Your task to perform on an android device: Show the shopping cart on target.com. Add "lenovo thinkpad" to the cart on target.com Image 0: 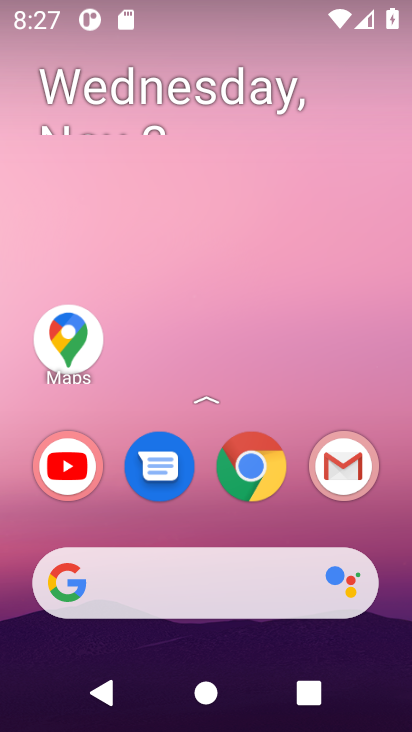
Step 0: click (220, 598)
Your task to perform on an android device: Show the shopping cart on target.com. Add "lenovo thinkpad" to the cart on target.com Image 1: 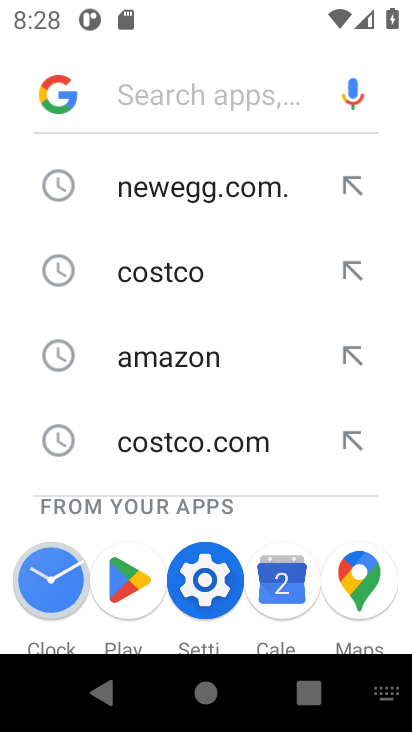
Step 1: type "target.com"
Your task to perform on an android device: Show the shopping cart on target.com. Add "lenovo thinkpad" to the cart on target.com Image 2: 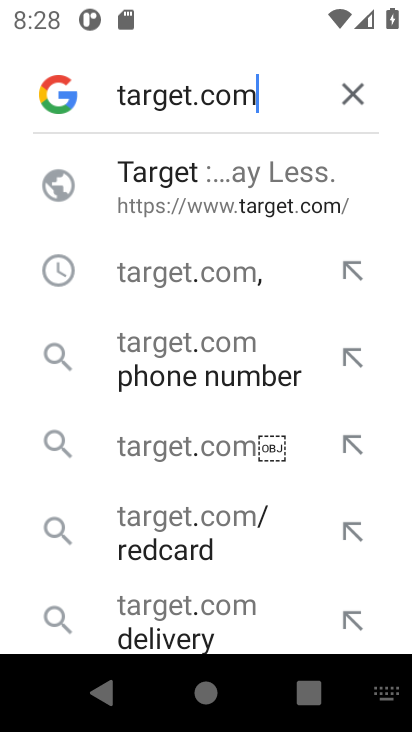
Step 2: type ""
Your task to perform on an android device: Show the shopping cart on target.com. Add "lenovo thinkpad" to the cart on target.com Image 3: 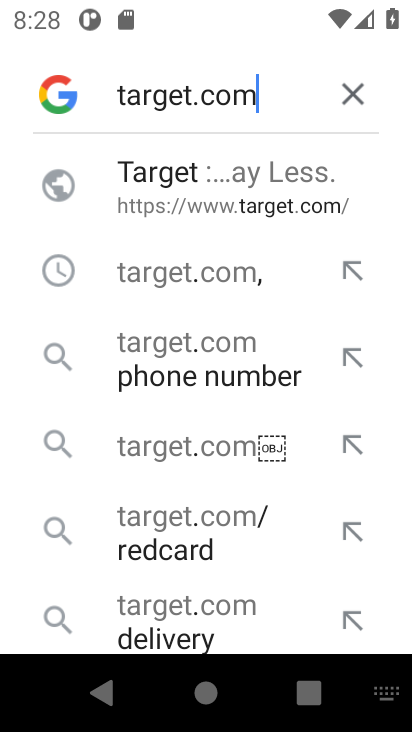
Step 3: click (206, 204)
Your task to perform on an android device: Show the shopping cart on target.com. Add "lenovo thinkpad" to the cart on target.com Image 4: 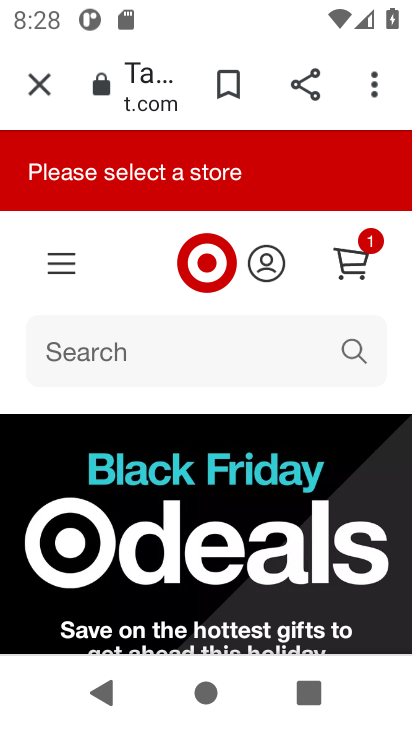
Step 4: click (345, 327)
Your task to perform on an android device: Show the shopping cart on target.com. Add "lenovo thinkpad" to the cart on target.com Image 5: 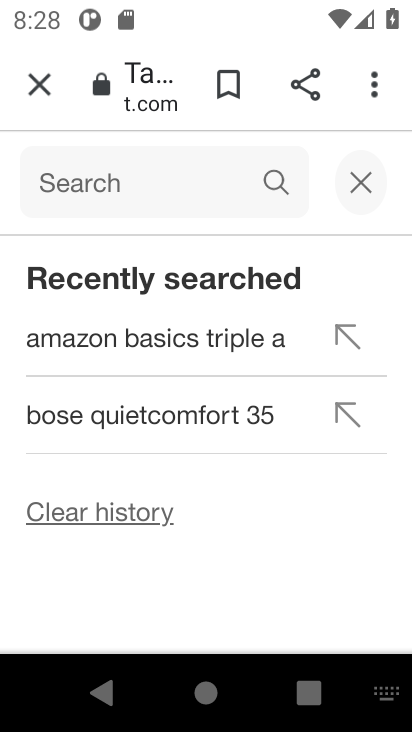
Step 5: type "lenovo thinkpad"
Your task to perform on an android device: Show the shopping cart on target.com. Add "lenovo thinkpad" to the cart on target.com Image 6: 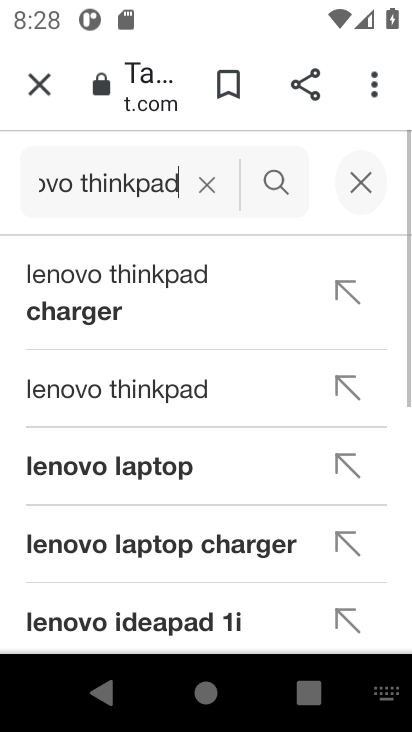
Step 6: type ""
Your task to perform on an android device: Show the shopping cart on target.com. Add "lenovo thinkpad" to the cart on target.com Image 7: 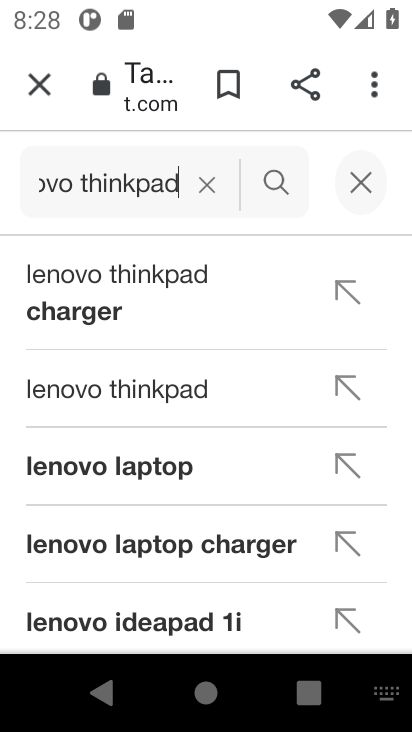
Step 7: click (181, 395)
Your task to perform on an android device: Show the shopping cart on target.com. Add "lenovo thinkpad" to the cart on target.com Image 8: 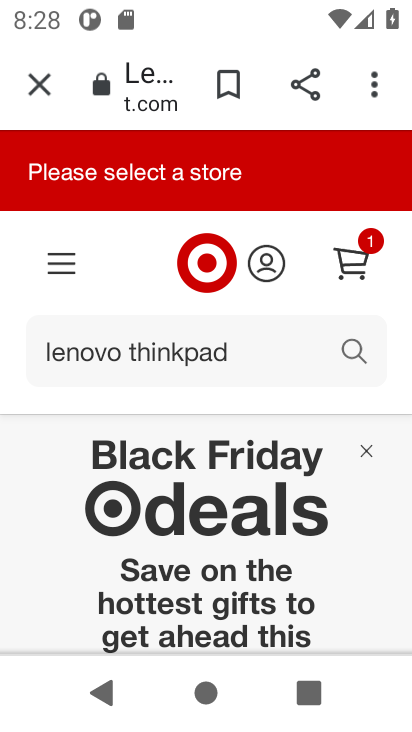
Step 8: drag from (220, 551) to (221, 180)
Your task to perform on an android device: Show the shopping cart on target.com. Add "lenovo thinkpad" to the cart on target.com Image 9: 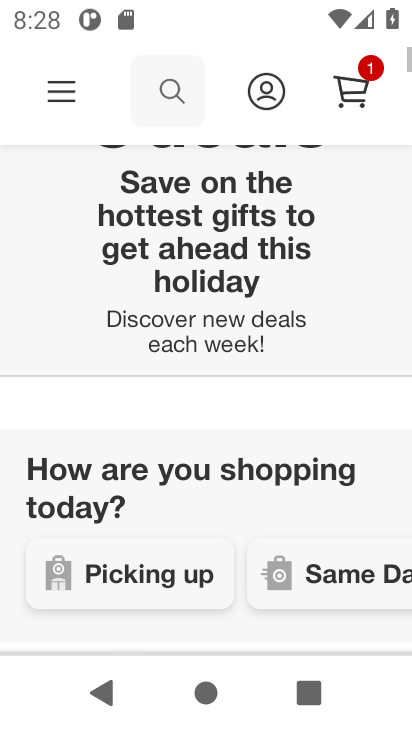
Step 9: drag from (168, 451) to (178, 246)
Your task to perform on an android device: Show the shopping cart on target.com. Add "lenovo thinkpad" to the cart on target.com Image 10: 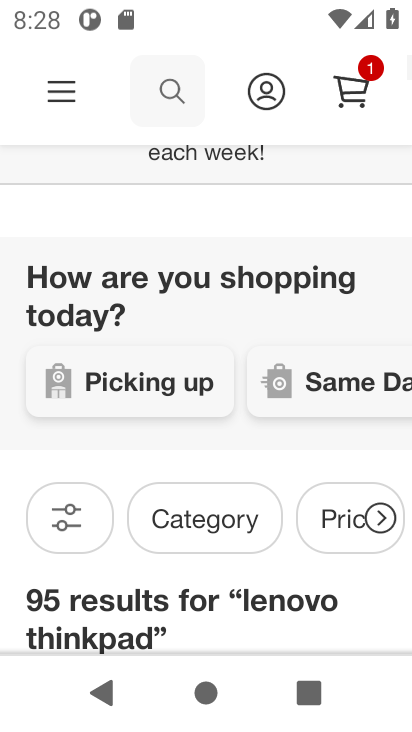
Step 10: drag from (217, 509) to (224, 190)
Your task to perform on an android device: Show the shopping cart on target.com. Add "lenovo thinkpad" to the cart on target.com Image 11: 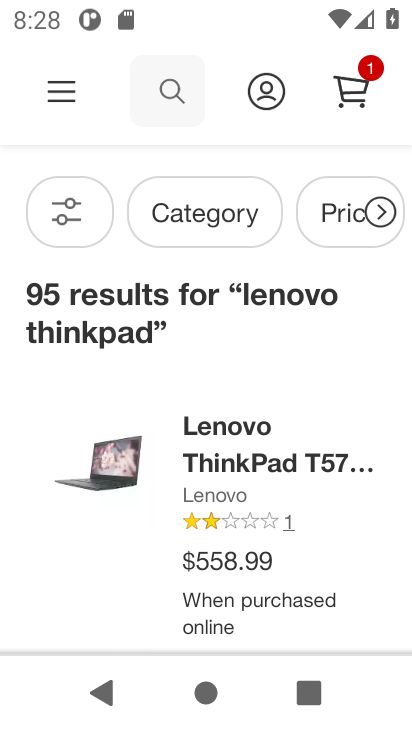
Step 11: click (244, 466)
Your task to perform on an android device: Show the shopping cart on target.com. Add "lenovo thinkpad" to the cart on target.com Image 12: 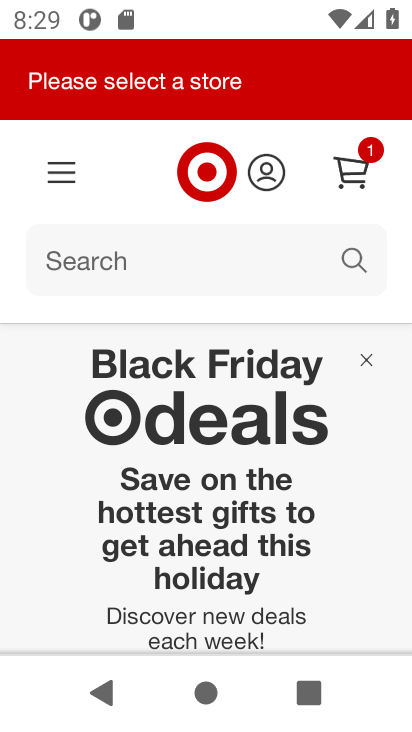
Step 12: click (379, 159)
Your task to perform on an android device: Show the shopping cart on target.com. Add "lenovo thinkpad" to the cart on target.com Image 13: 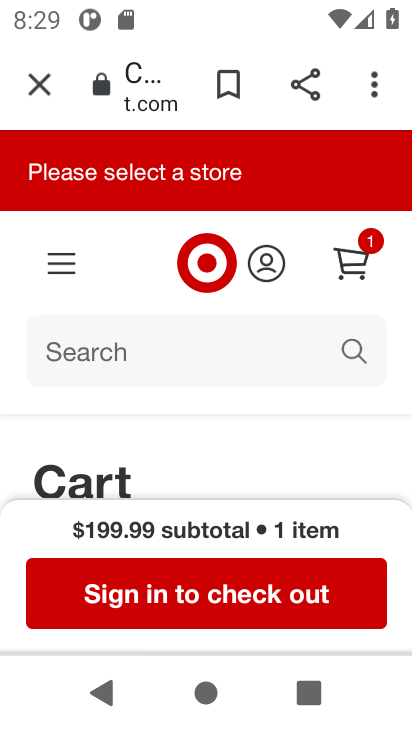
Step 13: click (230, 580)
Your task to perform on an android device: Show the shopping cart on target.com. Add "lenovo thinkpad" to the cart on target.com Image 14: 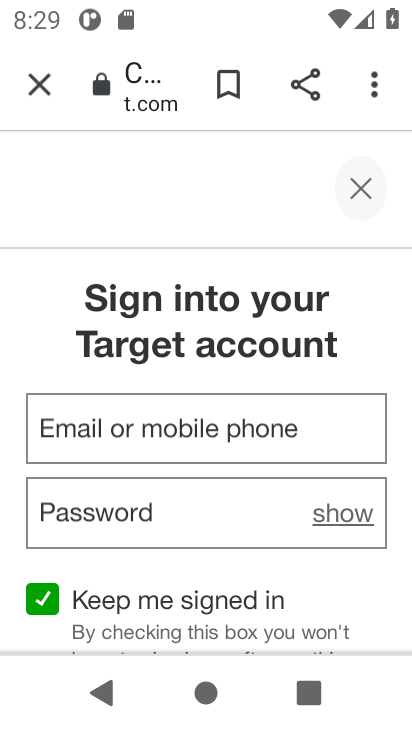
Step 14: task complete